Your task to perform on an android device: Open network settings Image 0: 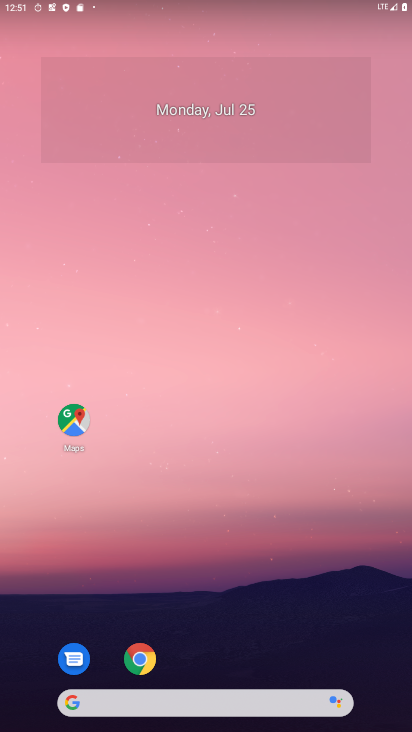
Step 0: drag from (30, 668) to (167, 172)
Your task to perform on an android device: Open network settings Image 1: 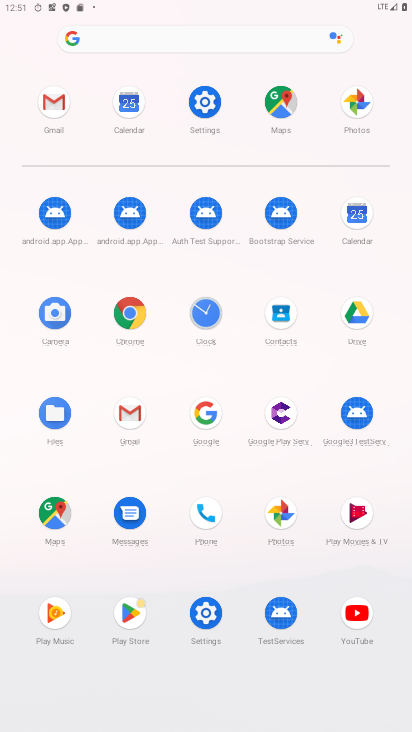
Step 1: click (213, 617)
Your task to perform on an android device: Open network settings Image 2: 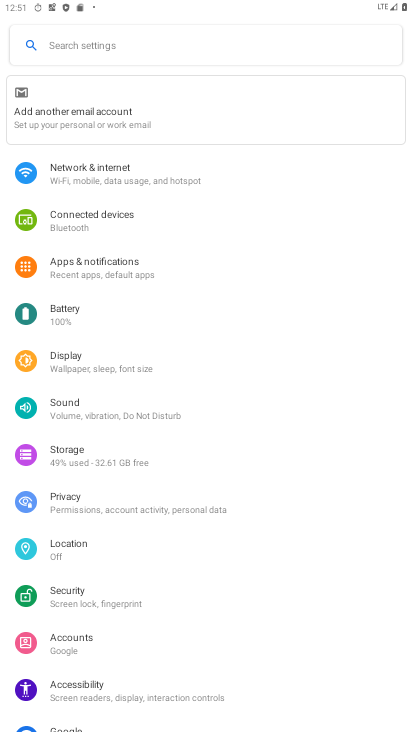
Step 2: click (102, 165)
Your task to perform on an android device: Open network settings Image 3: 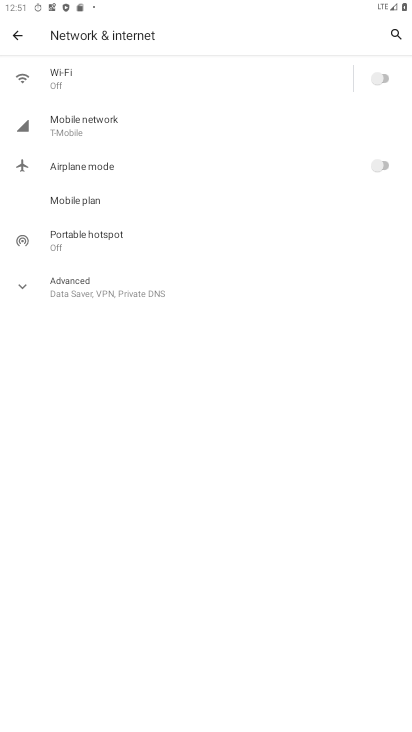
Step 3: task complete